Your task to perform on an android device: Go to settings Image 0: 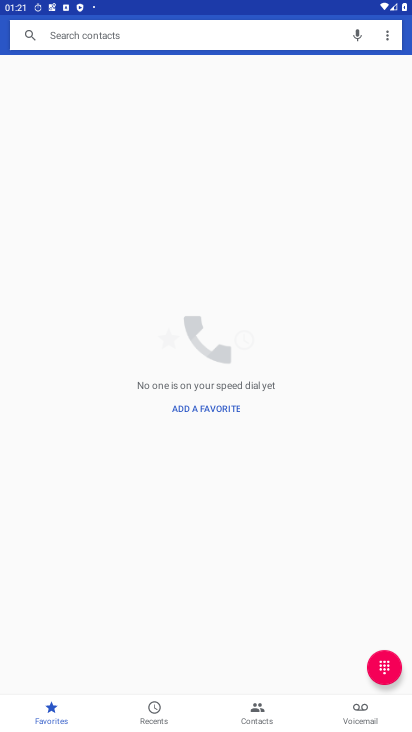
Step 0: press home button
Your task to perform on an android device: Go to settings Image 1: 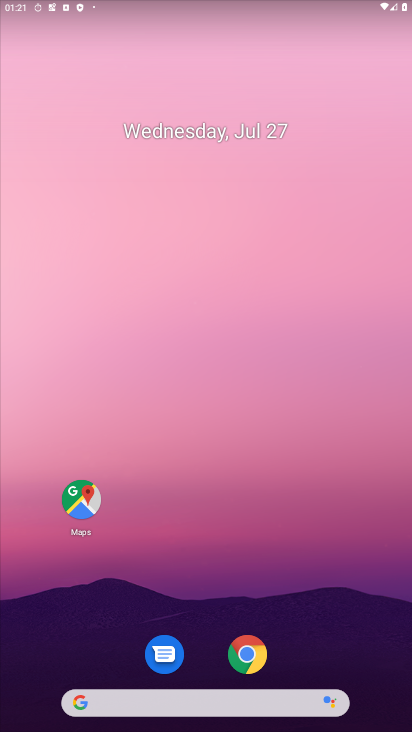
Step 1: drag from (293, 687) to (312, 375)
Your task to perform on an android device: Go to settings Image 2: 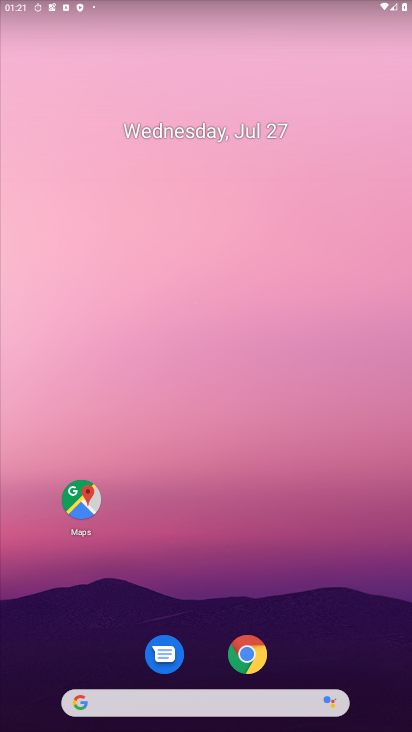
Step 2: drag from (194, 704) to (137, 22)
Your task to perform on an android device: Go to settings Image 3: 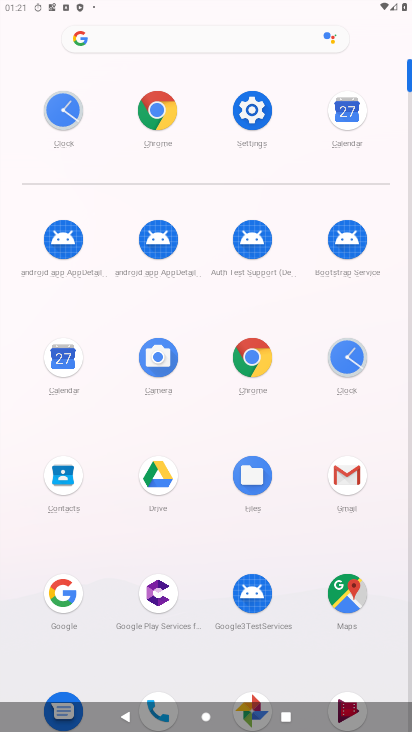
Step 3: click (251, 92)
Your task to perform on an android device: Go to settings Image 4: 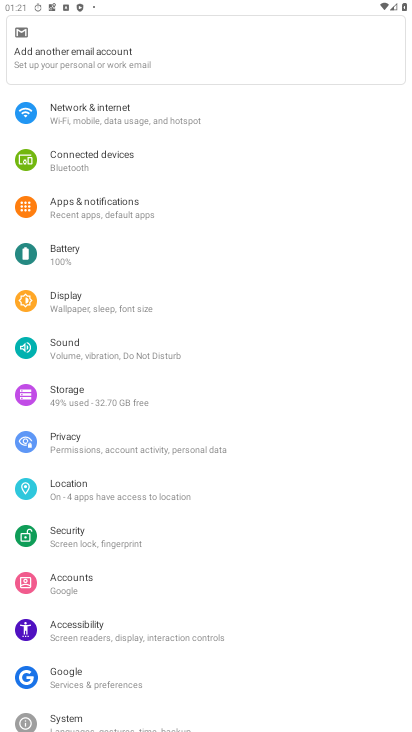
Step 4: task complete